Your task to perform on an android device: Show me productivity apps on the Play Store Image 0: 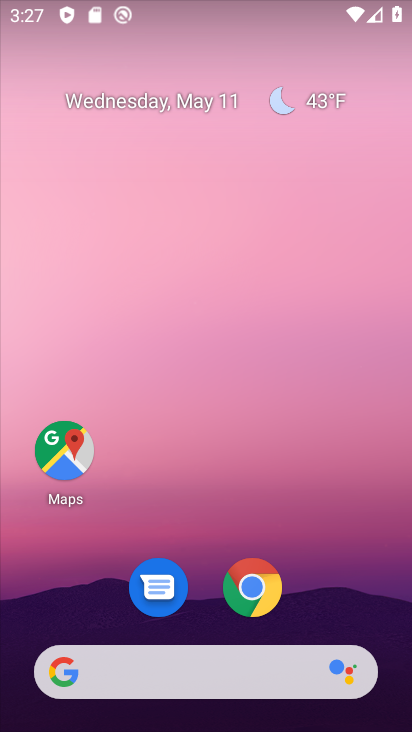
Step 0: drag from (317, 620) to (326, 298)
Your task to perform on an android device: Show me productivity apps on the Play Store Image 1: 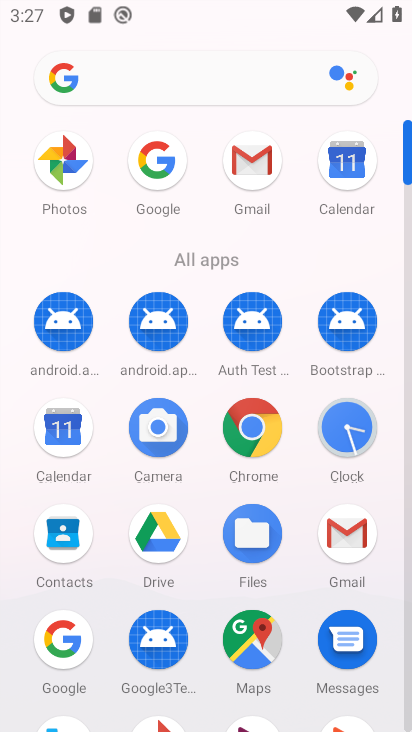
Step 1: drag from (209, 618) to (261, 255)
Your task to perform on an android device: Show me productivity apps on the Play Store Image 2: 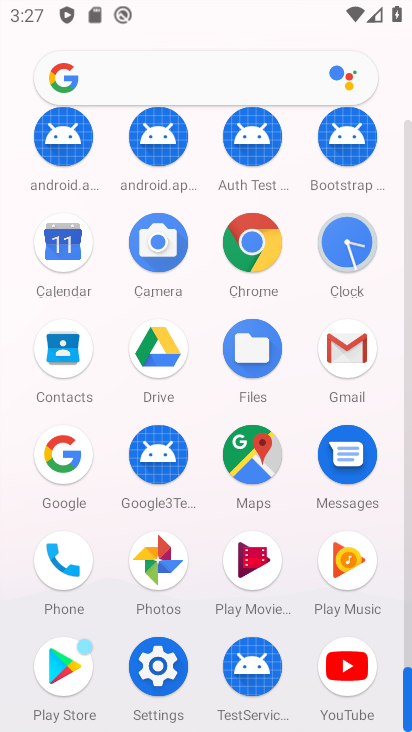
Step 2: click (75, 662)
Your task to perform on an android device: Show me productivity apps on the Play Store Image 3: 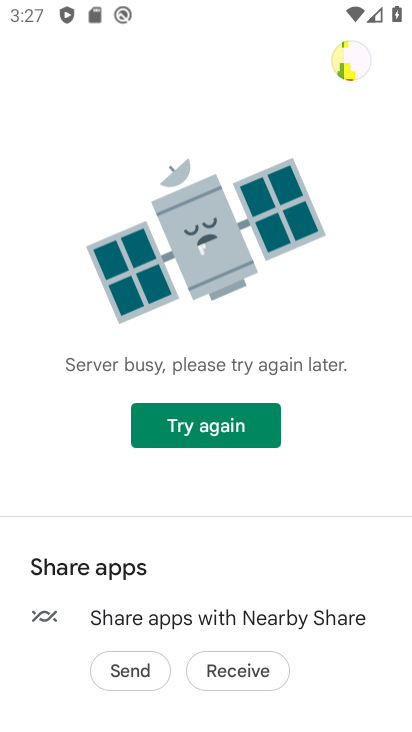
Step 3: click (203, 415)
Your task to perform on an android device: Show me productivity apps on the Play Store Image 4: 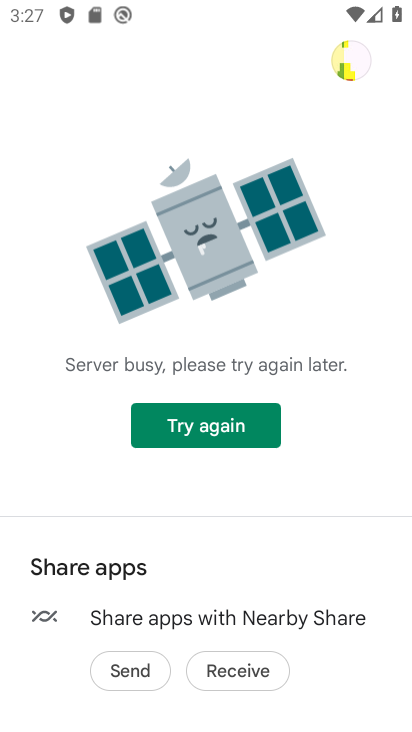
Step 4: click (373, 49)
Your task to perform on an android device: Show me productivity apps on the Play Store Image 5: 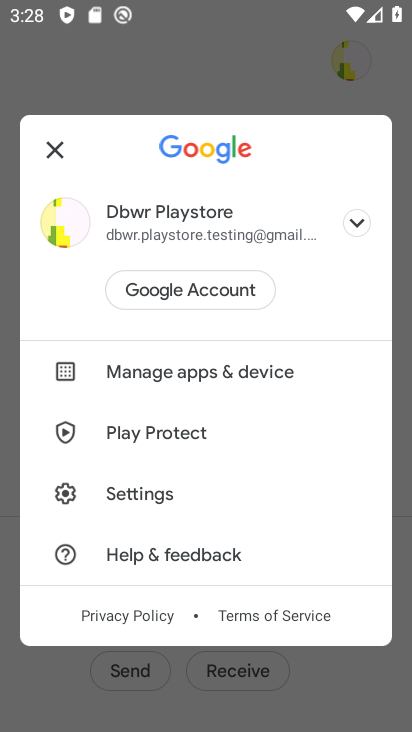
Step 5: click (263, 504)
Your task to perform on an android device: Show me productivity apps on the Play Store Image 6: 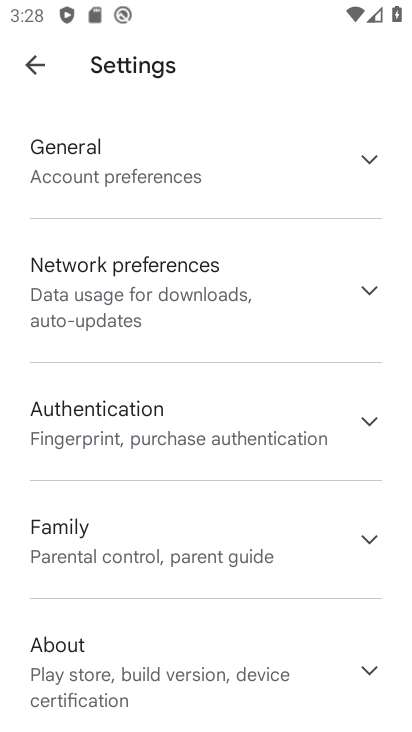
Step 6: drag from (239, 613) to (293, 166)
Your task to perform on an android device: Show me productivity apps on the Play Store Image 7: 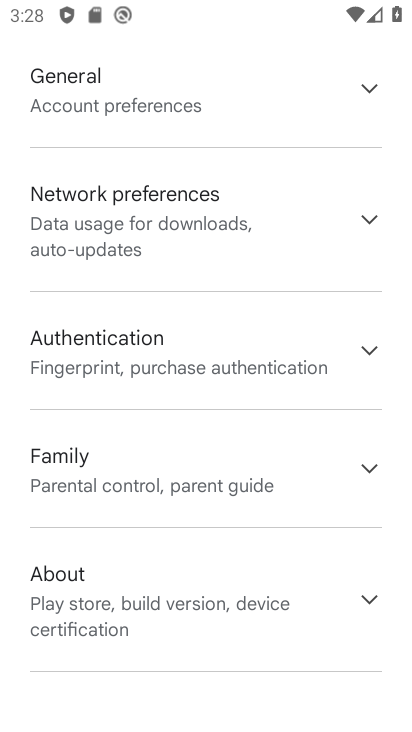
Step 7: drag from (262, 245) to (269, 495)
Your task to perform on an android device: Show me productivity apps on the Play Store Image 8: 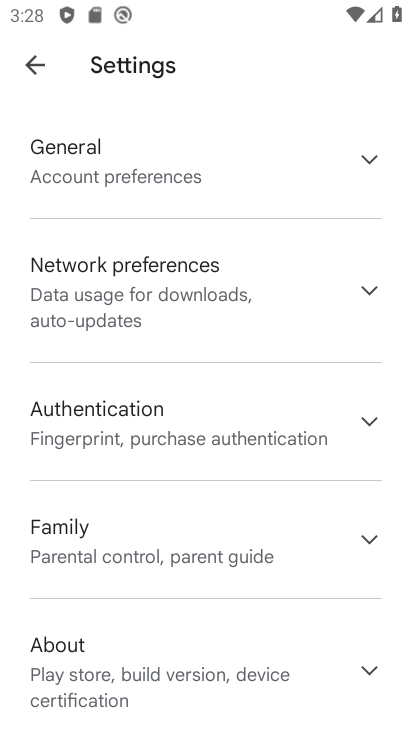
Step 8: click (28, 65)
Your task to perform on an android device: Show me productivity apps on the Play Store Image 9: 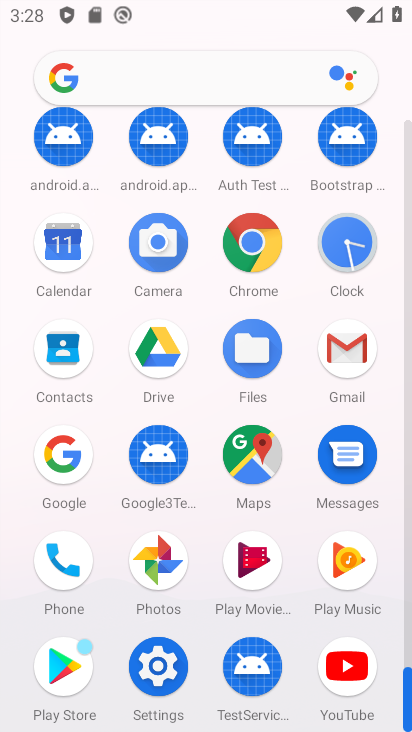
Step 9: task complete